Your task to perform on an android device: turn off airplane mode Image 0: 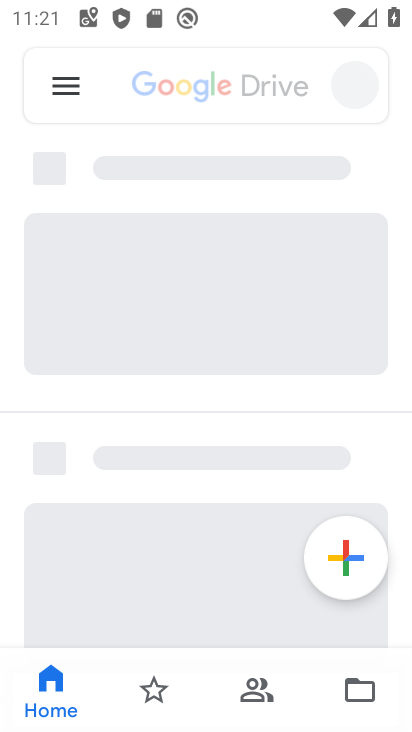
Step 0: press home button
Your task to perform on an android device: turn off airplane mode Image 1: 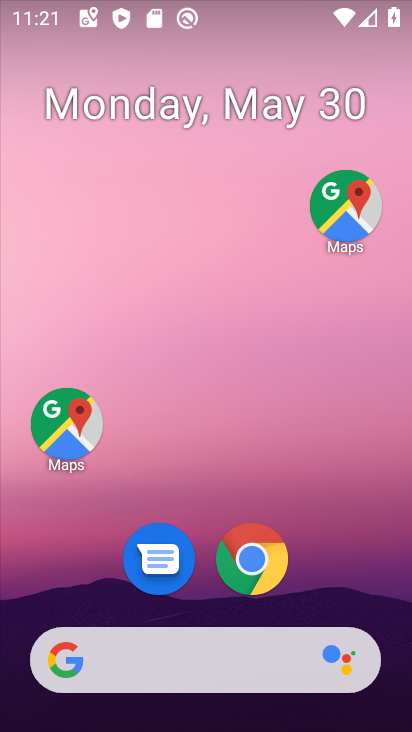
Step 1: drag from (323, 571) to (314, 50)
Your task to perform on an android device: turn off airplane mode Image 2: 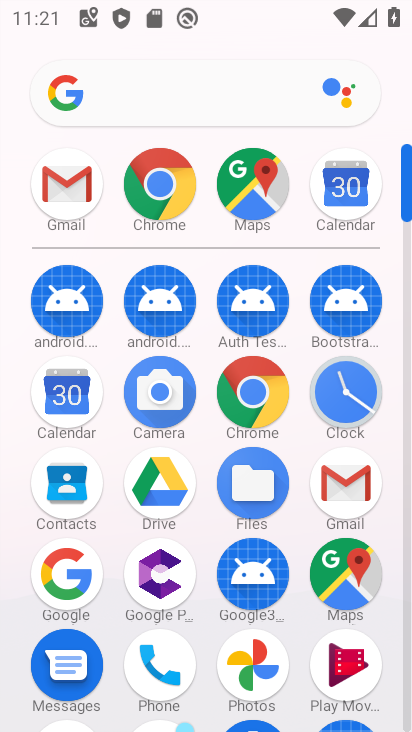
Step 2: drag from (294, 613) to (325, 172)
Your task to perform on an android device: turn off airplane mode Image 3: 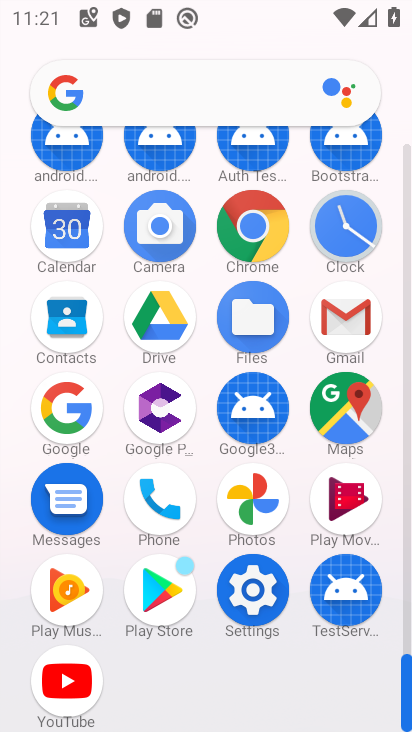
Step 3: click (249, 601)
Your task to perform on an android device: turn off airplane mode Image 4: 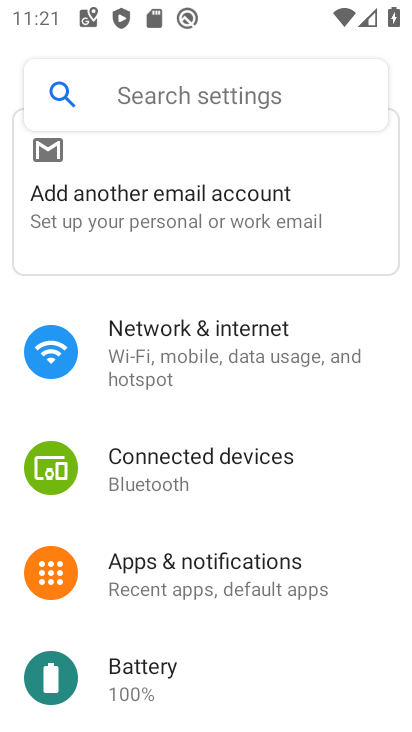
Step 4: click (233, 363)
Your task to perform on an android device: turn off airplane mode Image 5: 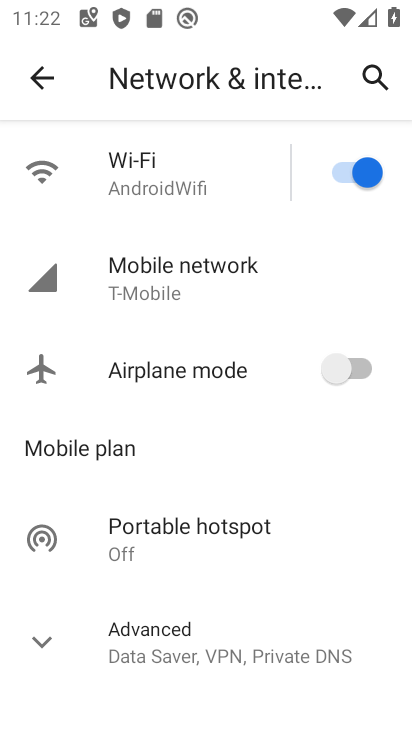
Step 5: task complete